Your task to perform on an android device: change text size in settings app Image 0: 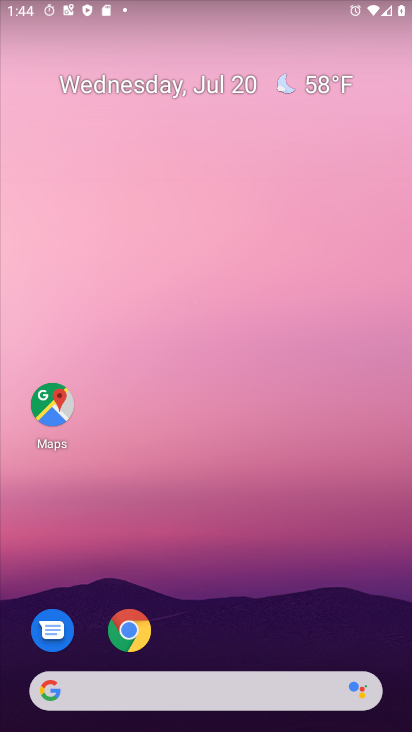
Step 0: drag from (211, 698) to (355, 80)
Your task to perform on an android device: change text size in settings app Image 1: 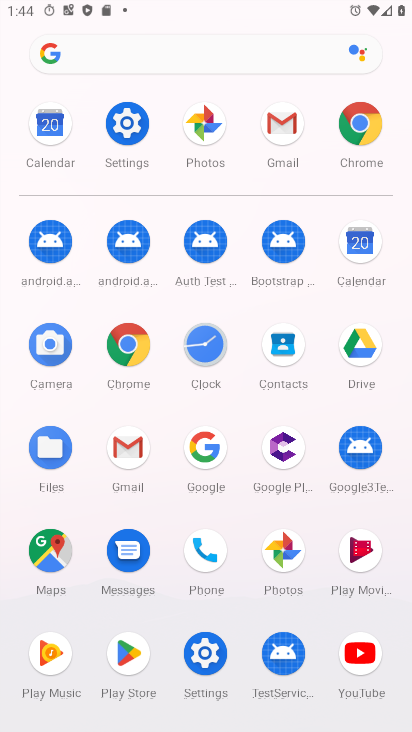
Step 1: click (137, 125)
Your task to perform on an android device: change text size in settings app Image 2: 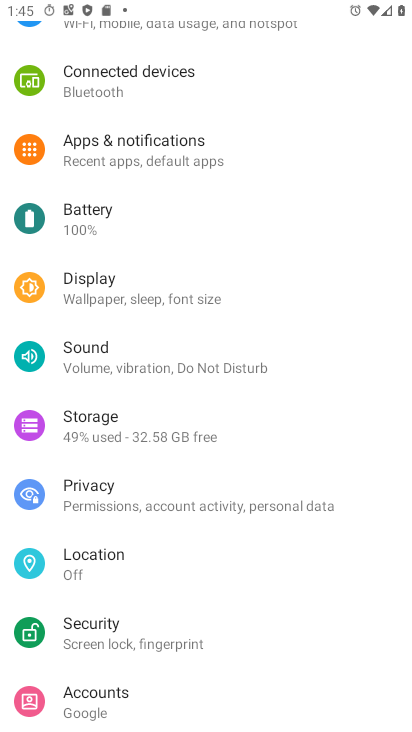
Step 2: click (133, 295)
Your task to perform on an android device: change text size in settings app Image 3: 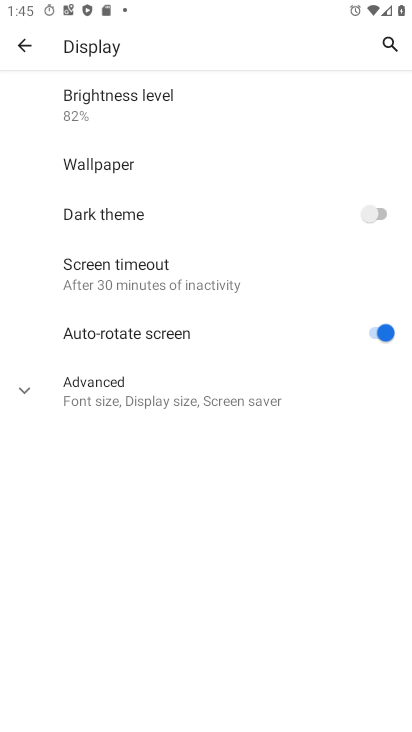
Step 3: click (115, 402)
Your task to perform on an android device: change text size in settings app Image 4: 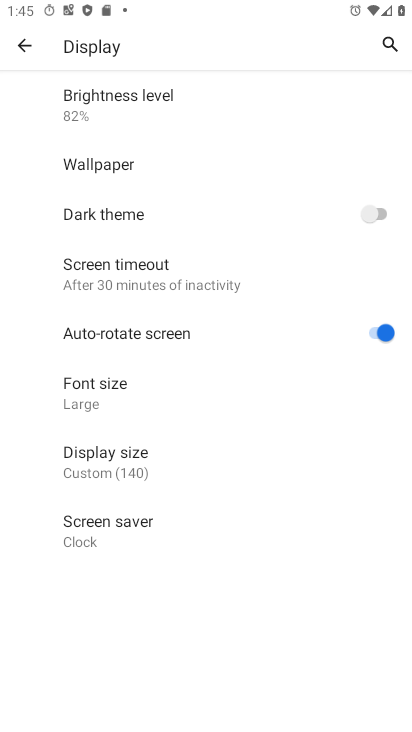
Step 4: click (99, 389)
Your task to perform on an android device: change text size in settings app Image 5: 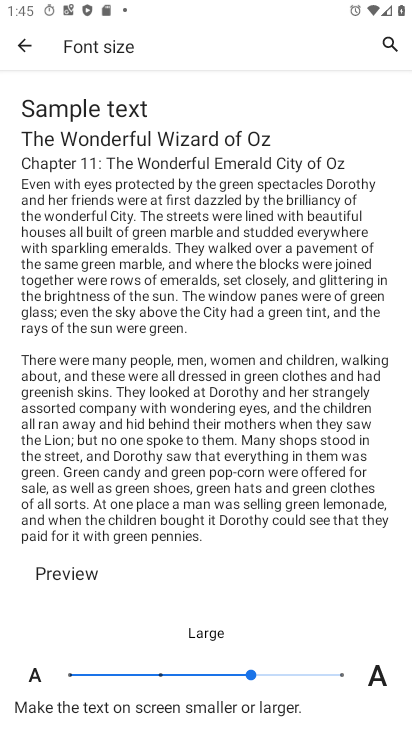
Step 5: click (162, 673)
Your task to perform on an android device: change text size in settings app Image 6: 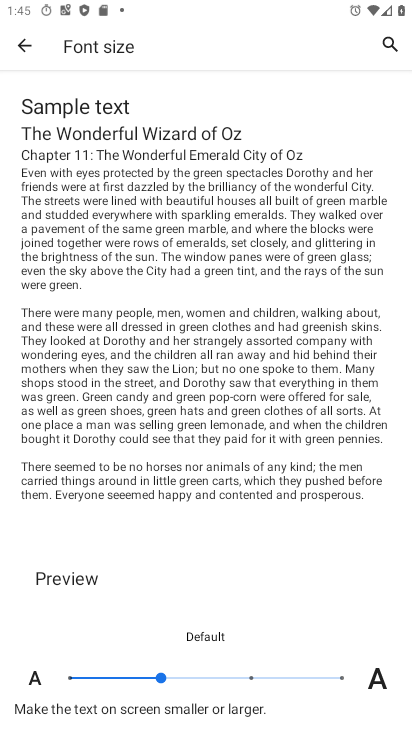
Step 6: task complete